Your task to perform on an android device: open app "McDonald's" (install if not already installed) Image 0: 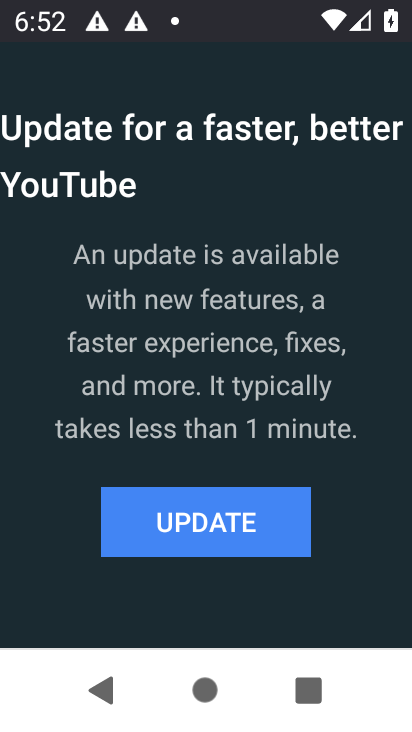
Step 0: press back button
Your task to perform on an android device: open app "McDonald's" (install if not already installed) Image 1: 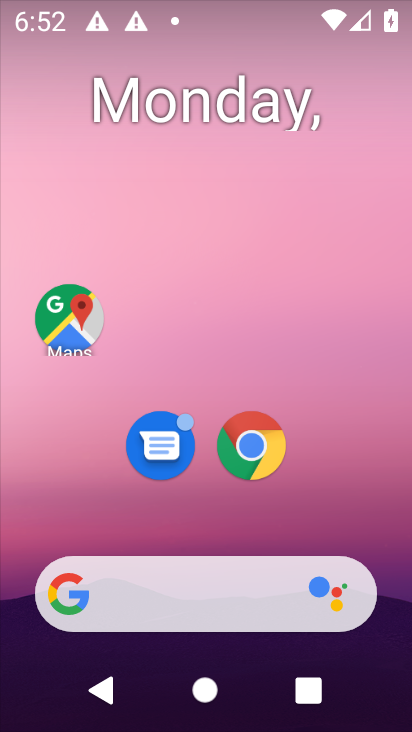
Step 1: drag from (396, 611) to (238, 62)
Your task to perform on an android device: open app "McDonald's" (install if not already installed) Image 2: 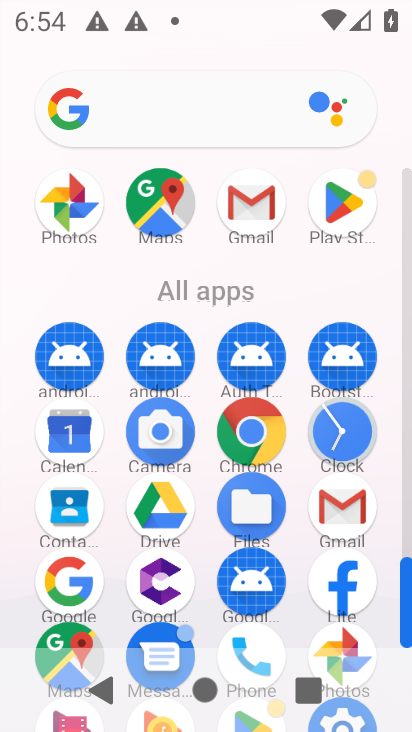
Step 2: click (345, 216)
Your task to perform on an android device: open app "McDonald's" (install if not already installed) Image 3: 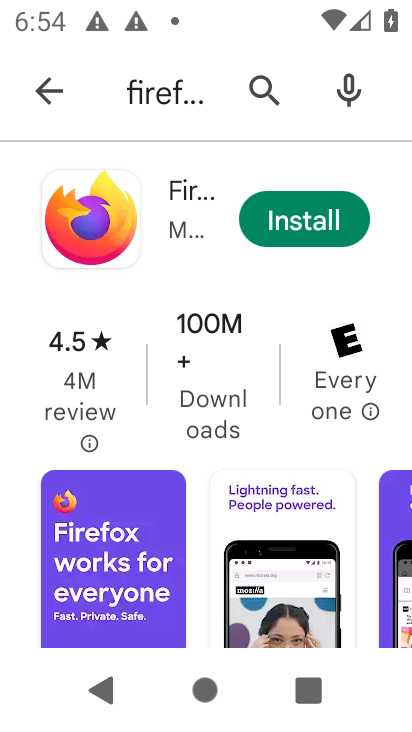
Step 3: press back button
Your task to perform on an android device: open app "McDonald's" (install if not already installed) Image 4: 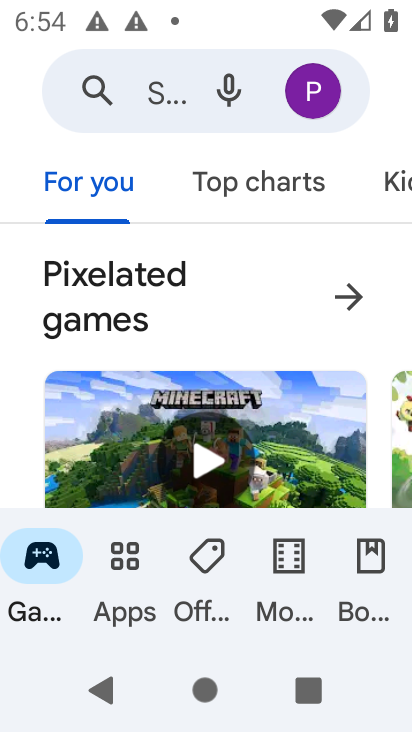
Step 4: click (160, 97)
Your task to perform on an android device: open app "McDonald's" (install if not already installed) Image 5: 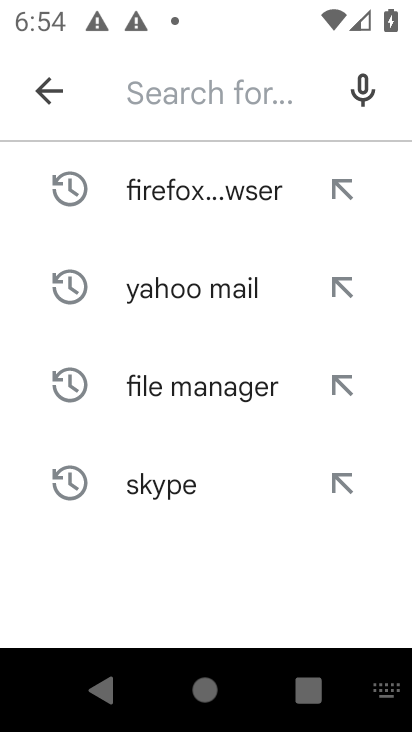
Step 5: type "McDonald's"
Your task to perform on an android device: open app "McDonald's" (install if not already installed) Image 6: 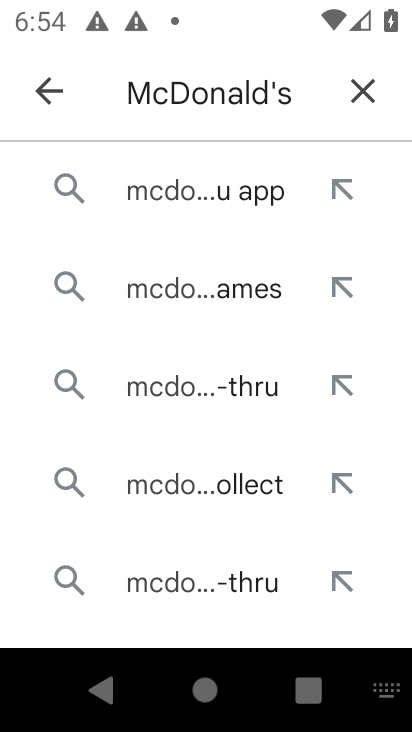
Step 6: click (154, 196)
Your task to perform on an android device: open app "McDonald's" (install if not already installed) Image 7: 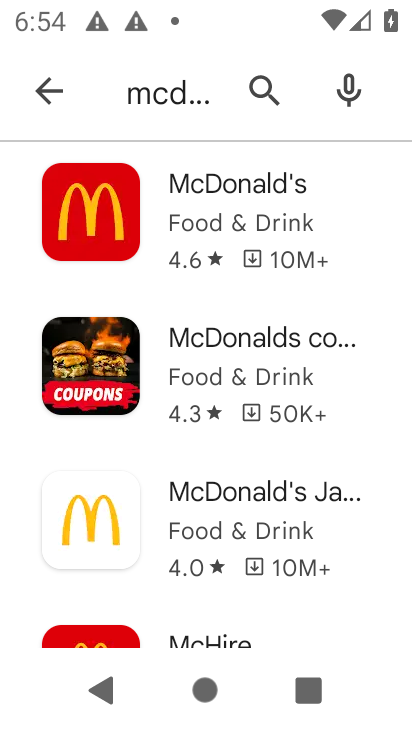
Step 7: task complete